Your task to perform on an android device: change alarm snooze length Image 0: 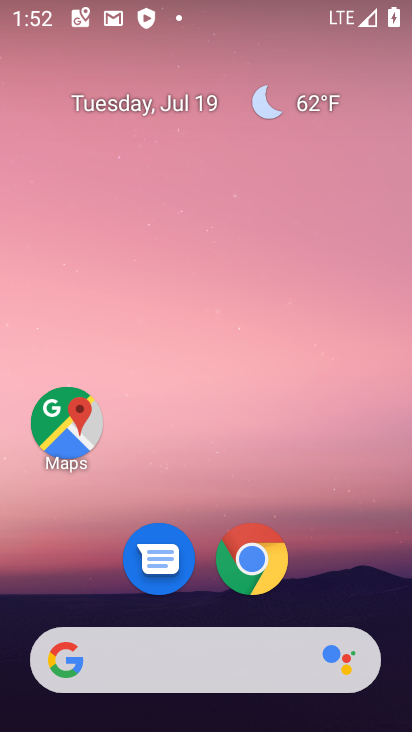
Step 0: drag from (299, 416) to (303, 252)
Your task to perform on an android device: change alarm snooze length Image 1: 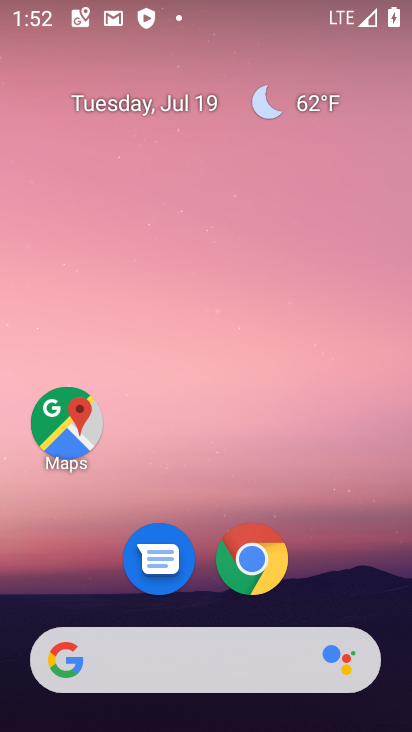
Step 1: drag from (300, 634) to (327, 248)
Your task to perform on an android device: change alarm snooze length Image 2: 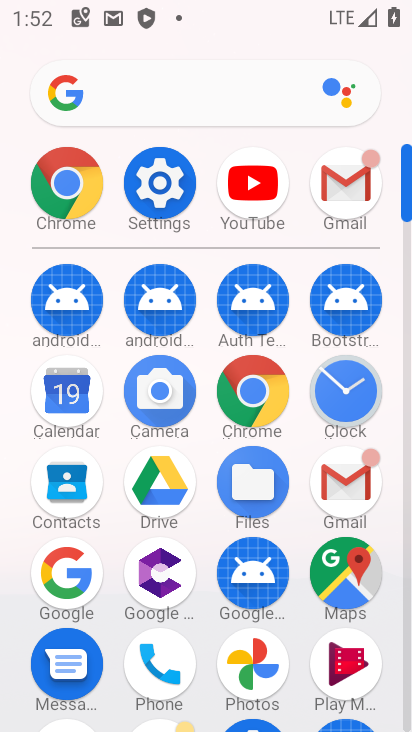
Step 2: click (359, 376)
Your task to perform on an android device: change alarm snooze length Image 3: 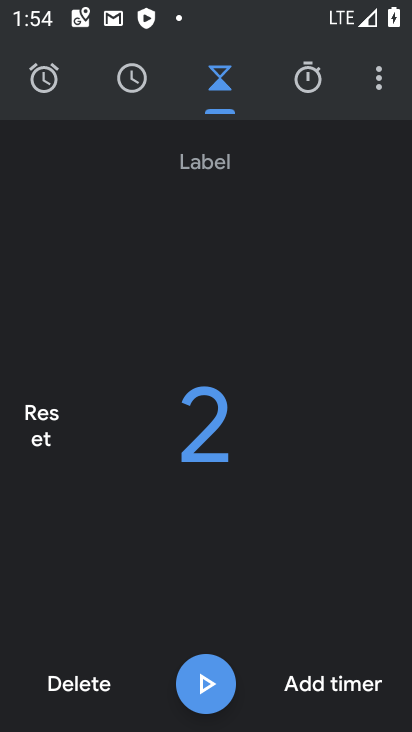
Step 3: click (376, 71)
Your task to perform on an android device: change alarm snooze length Image 4: 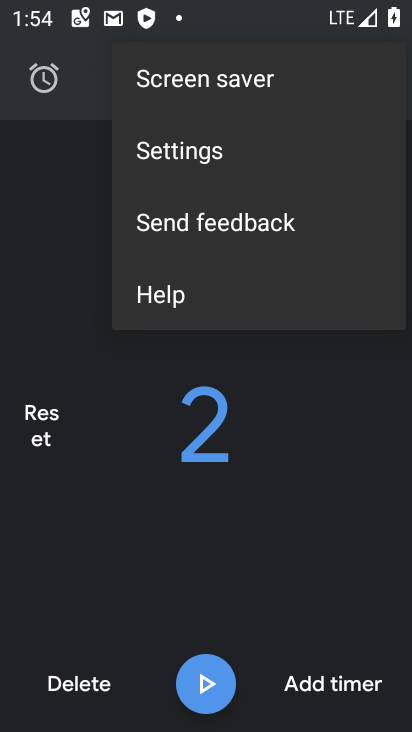
Step 4: click (204, 154)
Your task to perform on an android device: change alarm snooze length Image 5: 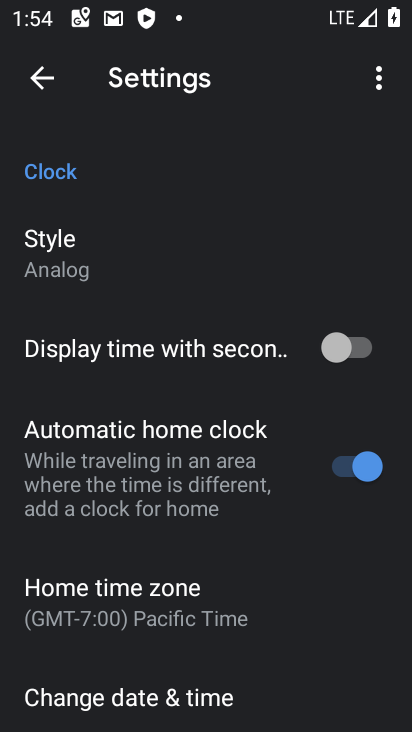
Step 5: drag from (176, 620) to (211, 219)
Your task to perform on an android device: change alarm snooze length Image 6: 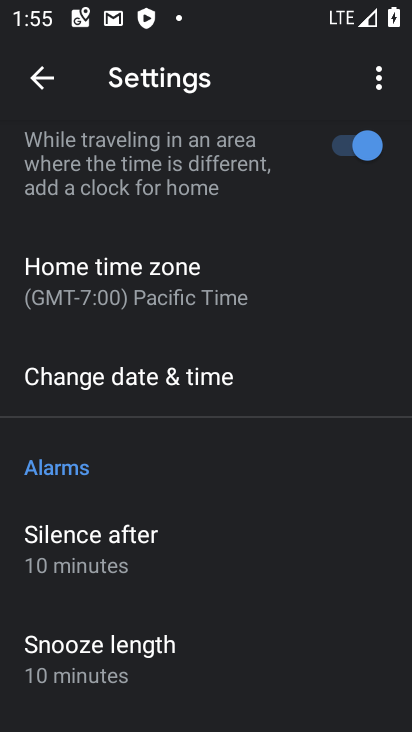
Step 6: click (174, 650)
Your task to perform on an android device: change alarm snooze length Image 7: 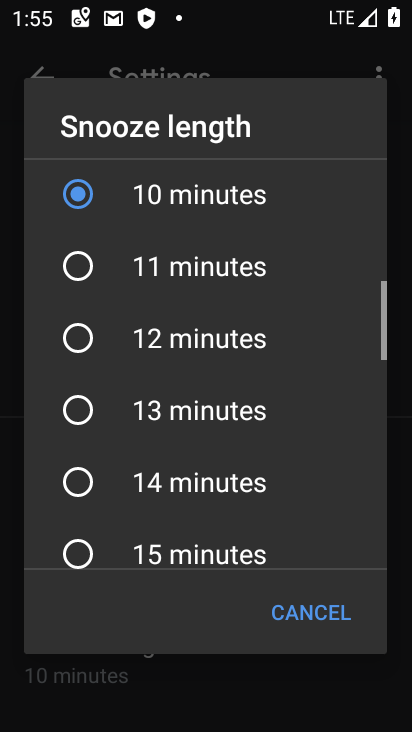
Step 7: click (179, 308)
Your task to perform on an android device: change alarm snooze length Image 8: 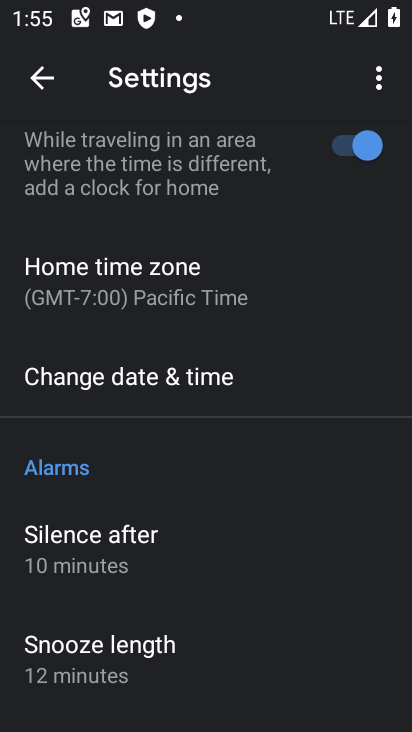
Step 8: task complete